Your task to perform on an android device: turn on sleep mode Image 0: 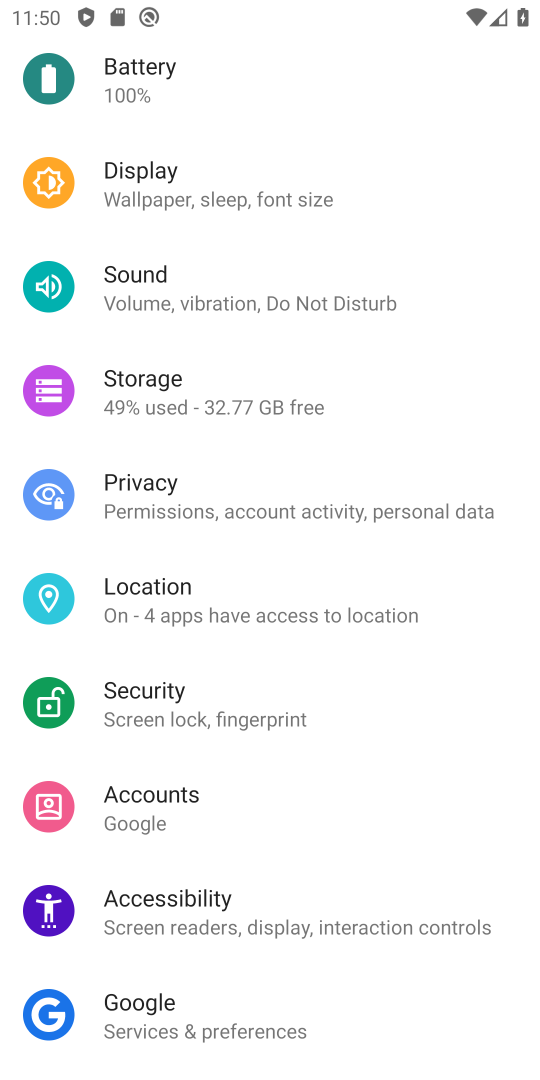
Step 0: click (232, 211)
Your task to perform on an android device: turn on sleep mode Image 1: 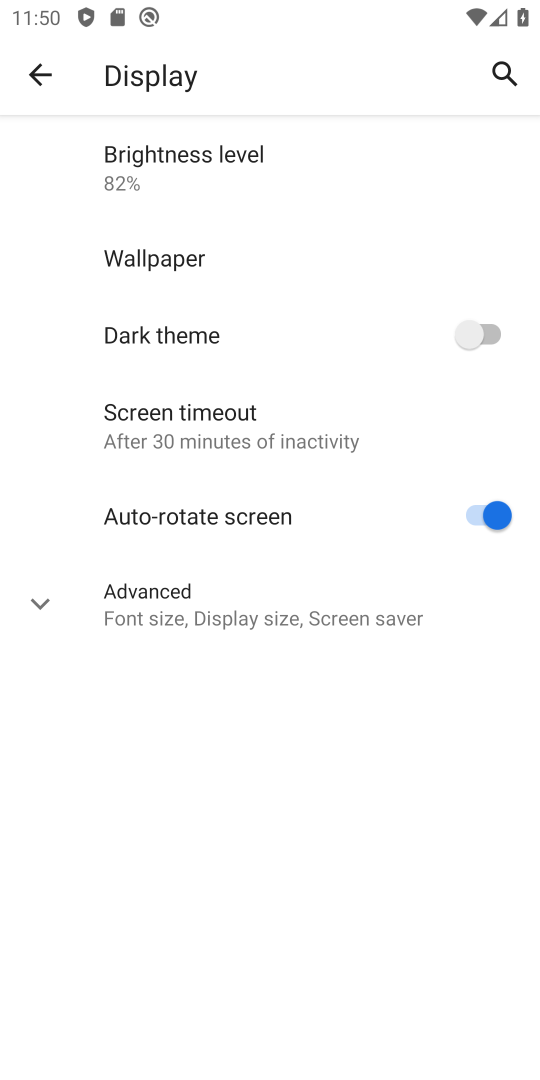
Step 1: task complete